Your task to perform on an android device: Go to CNN.com Image 0: 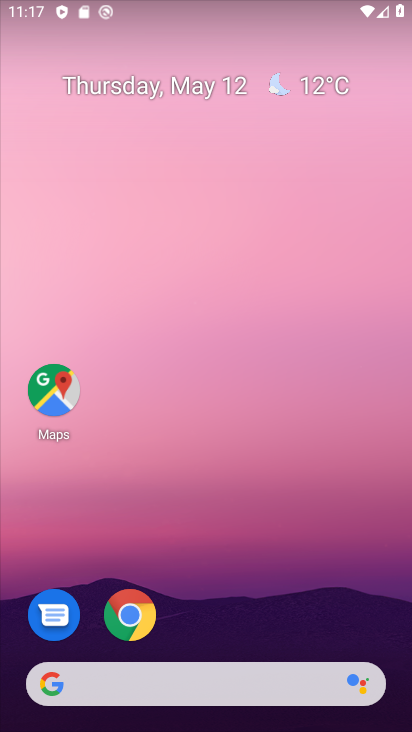
Step 0: click (127, 599)
Your task to perform on an android device: Go to CNN.com Image 1: 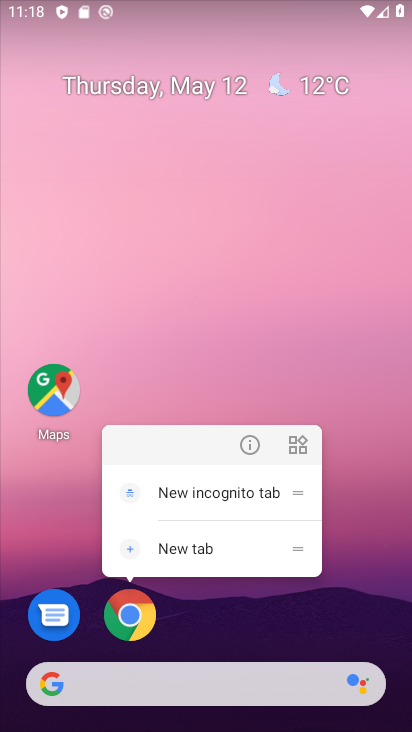
Step 1: click (127, 599)
Your task to perform on an android device: Go to CNN.com Image 2: 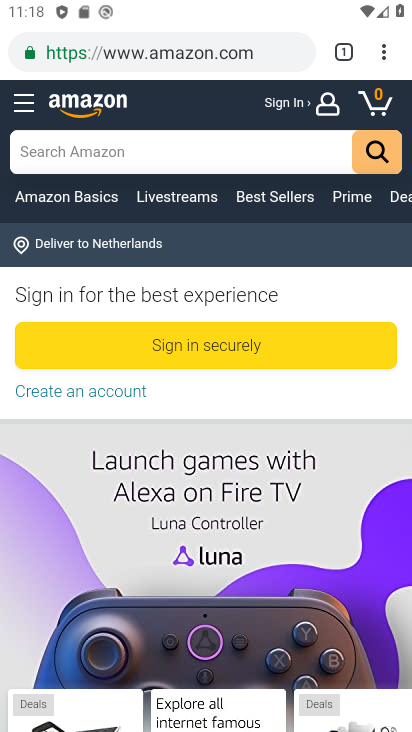
Step 2: click (331, 48)
Your task to perform on an android device: Go to CNN.com Image 3: 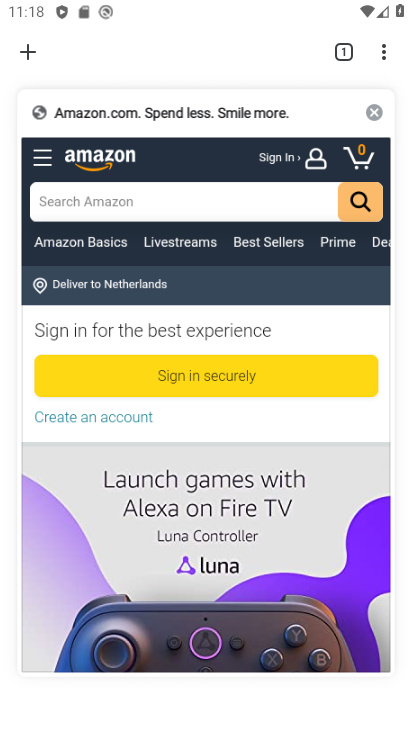
Step 3: click (34, 52)
Your task to perform on an android device: Go to CNN.com Image 4: 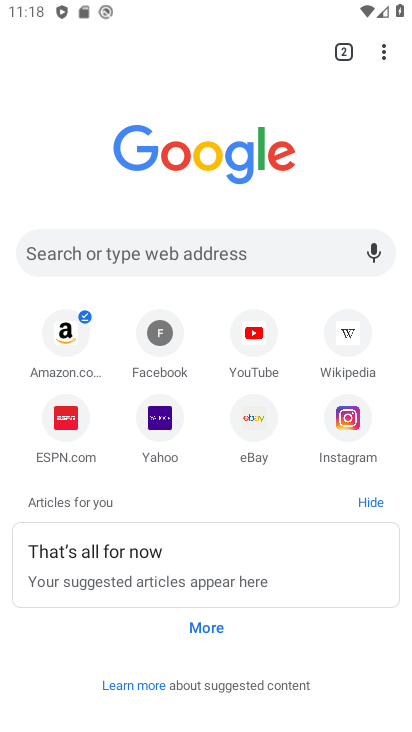
Step 4: click (193, 249)
Your task to perform on an android device: Go to CNN.com Image 5: 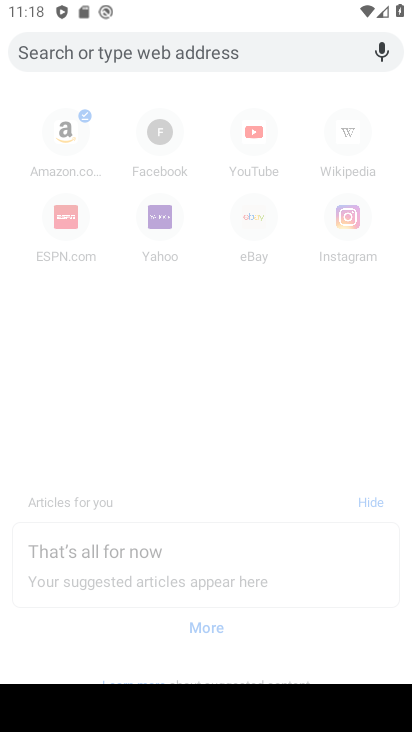
Step 5: type "CNN.com"
Your task to perform on an android device: Go to CNN.com Image 6: 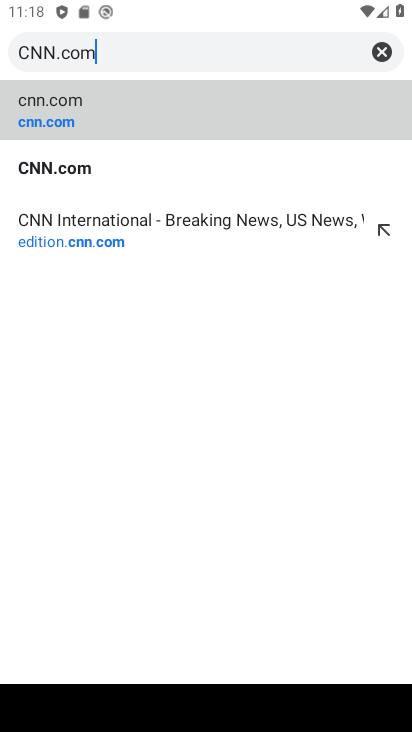
Step 6: click (124, 119)
Your task to perform on an android device: Go to CNN.com Image 7: 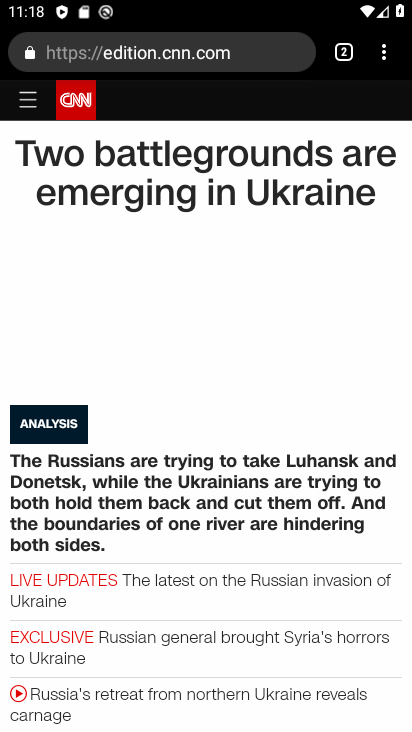
Step 7: task complete